Your task to perform on an android device: Open calendar and show me the first week of next month Image 0: 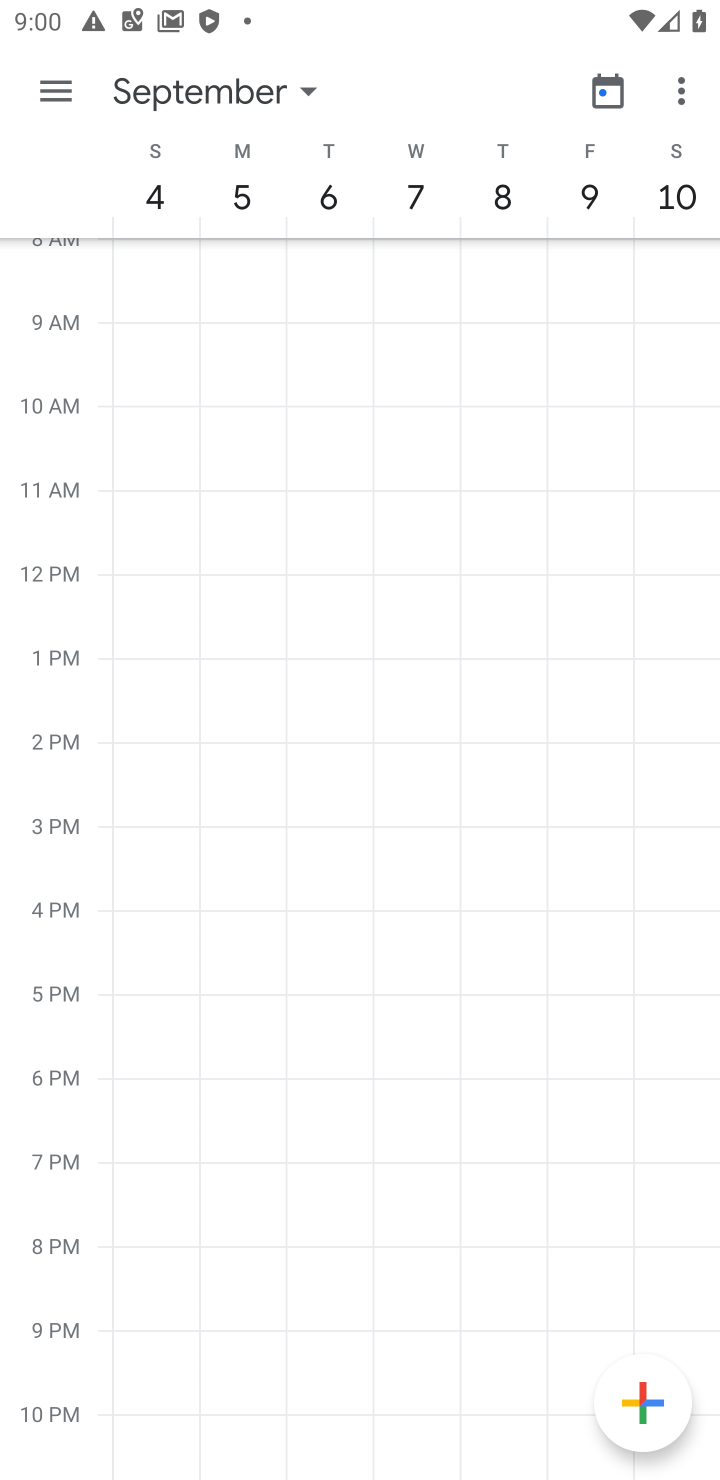
Step 0: drag from (168, 173) to (610, 162)
Your task to perform on an android device: Open calendar and show me the first week of next month Image 1: 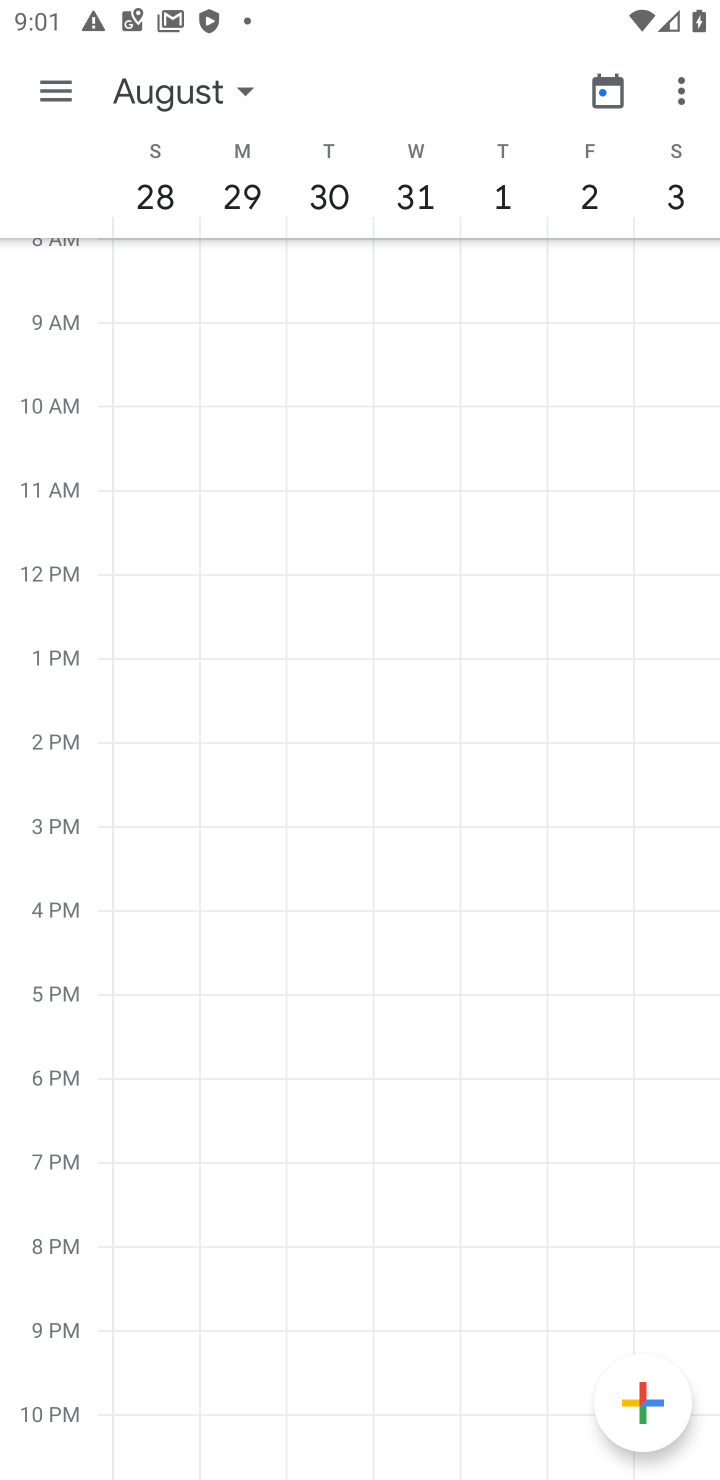
Step 1: task complete